Your task to perform on an android device: search for starred emails in the gmail app Image 0: 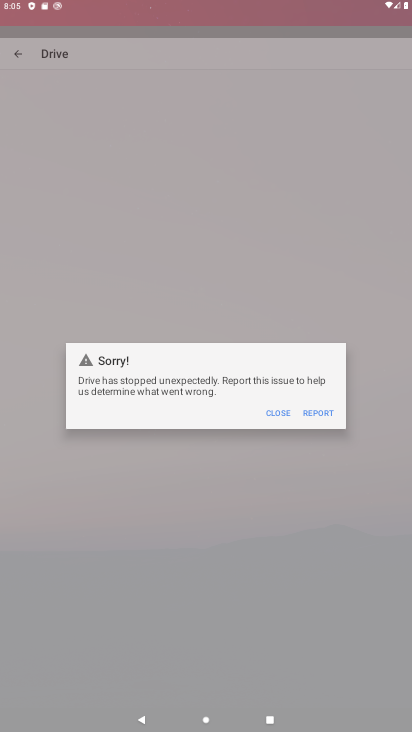
Step 0: drag from (202, 639) to (354, 151)
Your task to perform on an android device: search for starred emails in the gmail app Image 1: 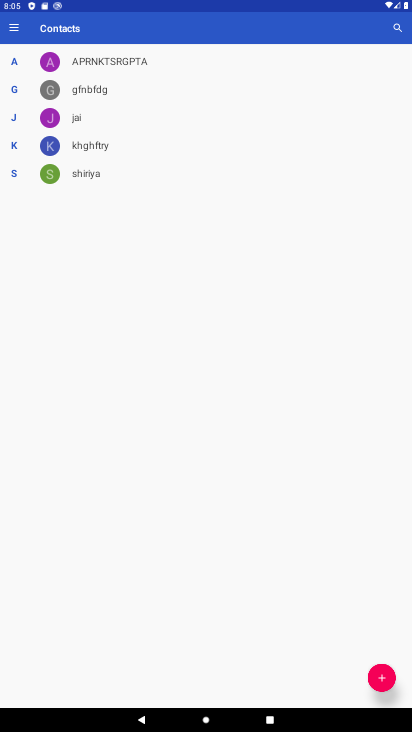
Step 1: press home button
Your task to perform on an android device: search for starred emails in the gmail app Image 2: 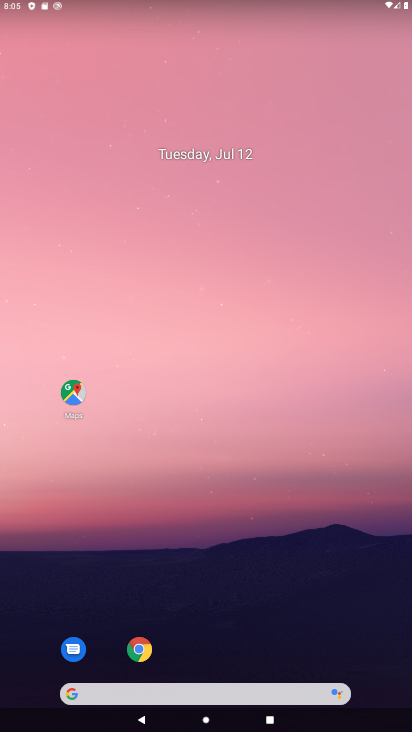
Step 2: drag from (233, 483) to (264, 193)
Your task to perform on an android device: search for starred emails in the gmail app Image 3: 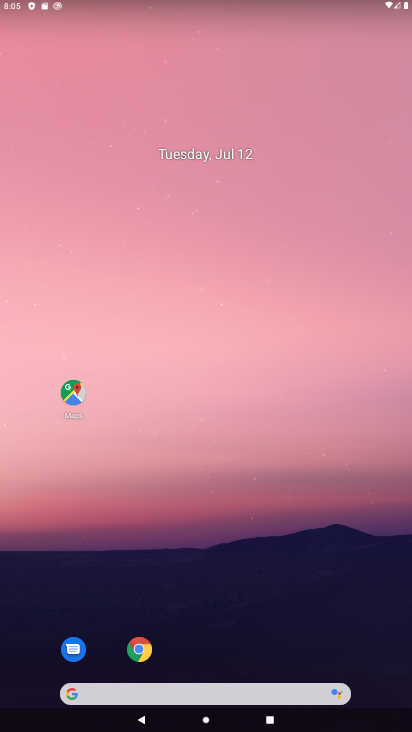
Step 3: drag from (190, 656) to (305, 190)
Your task to perform on an android device: search for starred emails in the gmail app Image 4: 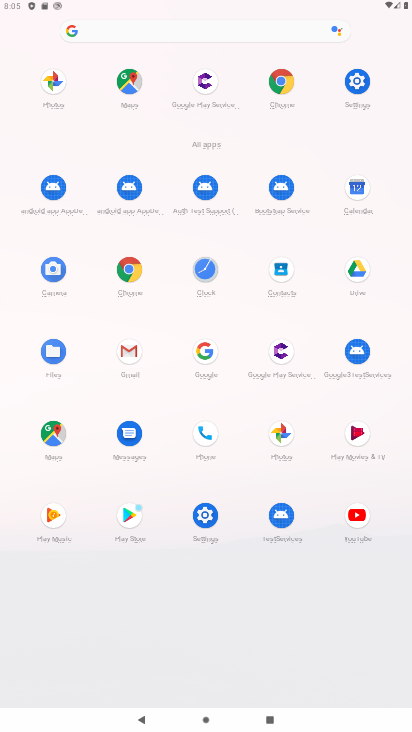
Step 4: click (126, 349)
Your task to perform on an android device: search for starred emails in the gmail app Image 5: 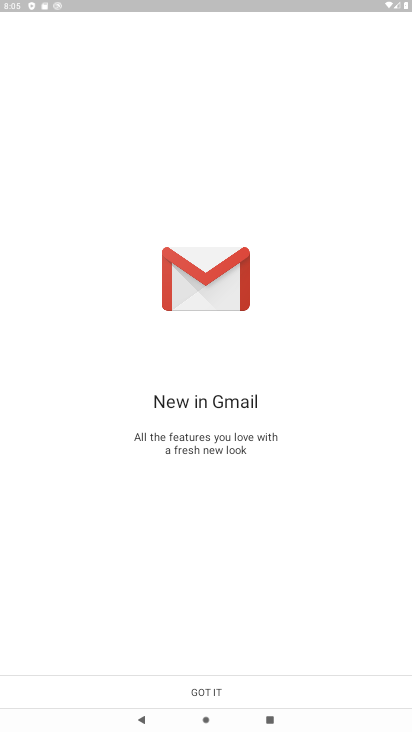
Step 5: click (200, 699)
Your task to perform on an android device: search for starred emails in the gmail app Image 6: 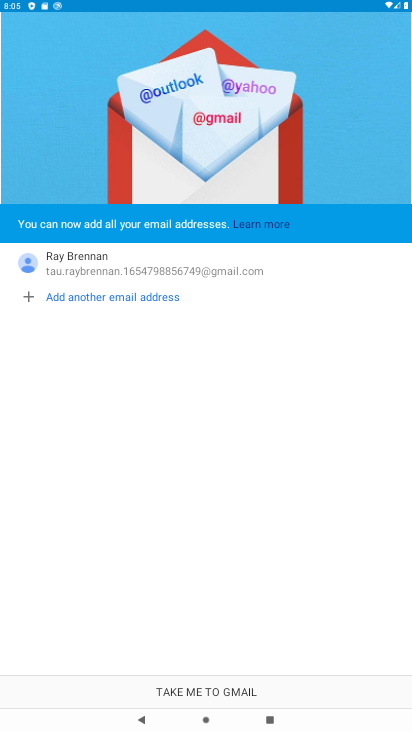
Step 6: click (200, 698)
Your task to perform on an android device: search for starred emails in the gmail app Image 7: 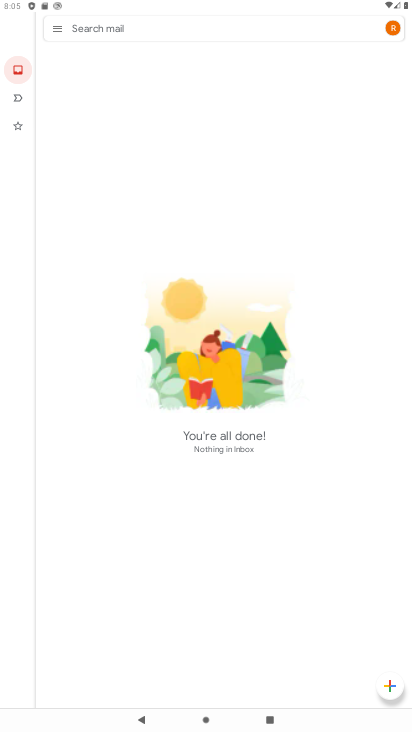
Step 7: click (53, 27)
Your task to perform on an android device: search for starred emails in the gmail app Image 8: 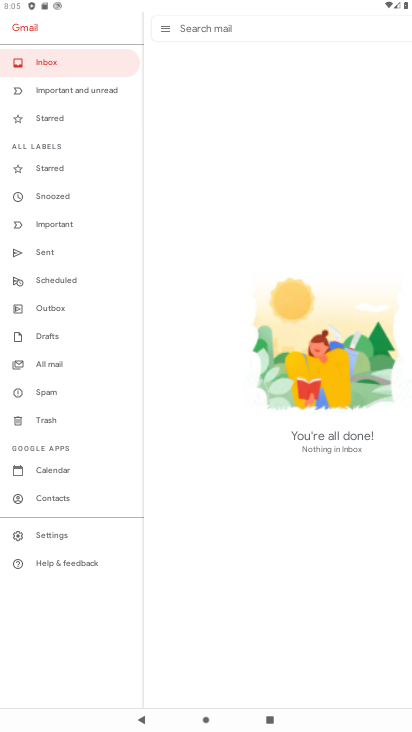
Step 8: click (52, 116)
Your task to perform on an android device: search for starred emails in the gmail app Image 9: 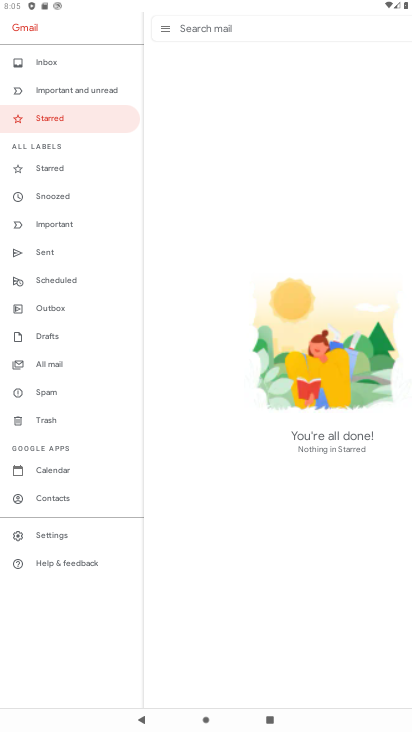
Step 9: task complete